Your task to perform on an android device: Open Yahoo.com Image 0: 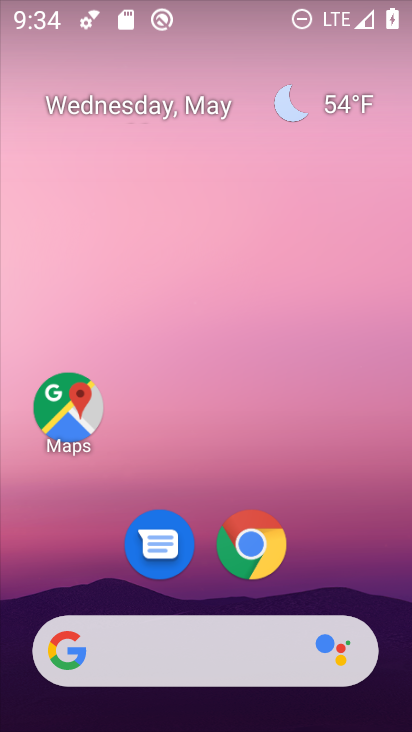
Step 0: click (248, 546)
Your task to perform on an android device: Open Yahoo.com Image 1: 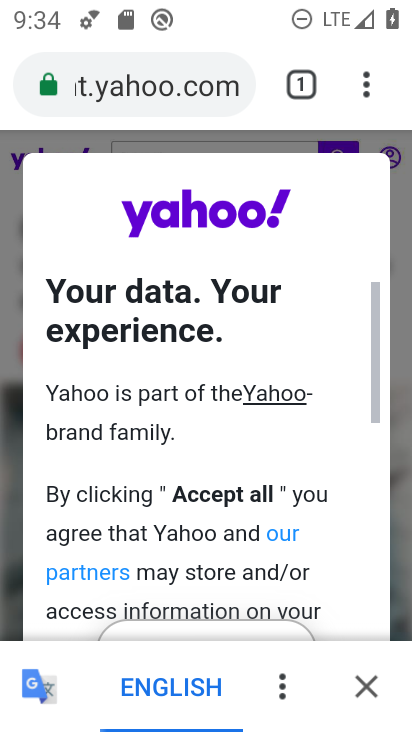
Step 1: task complete